Your task to perform on an android device: Go to Yahoo.com Image 0: 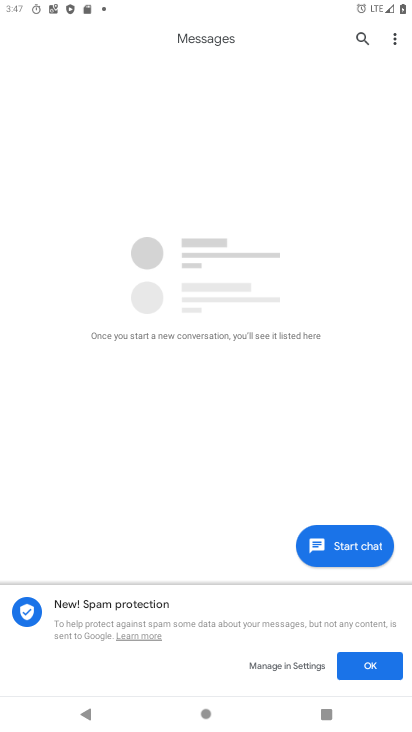
Step 0: press home button
Your task to perform on an android device: Go to Yahoo.com Image 1: 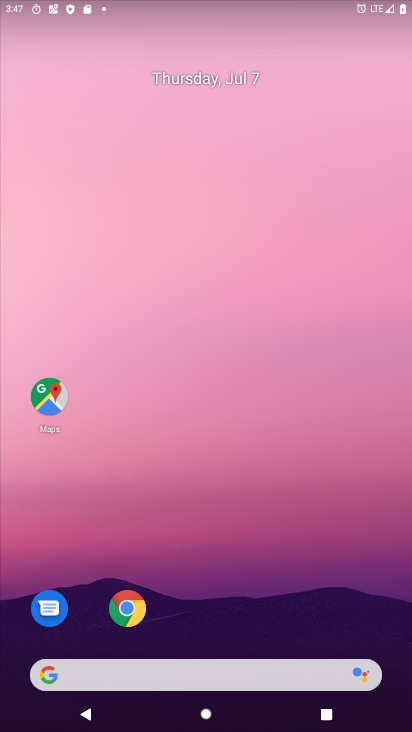
Step 1: click (120, 607)
Your task to perform on an android device: Go to Yahoo.com Image 2: 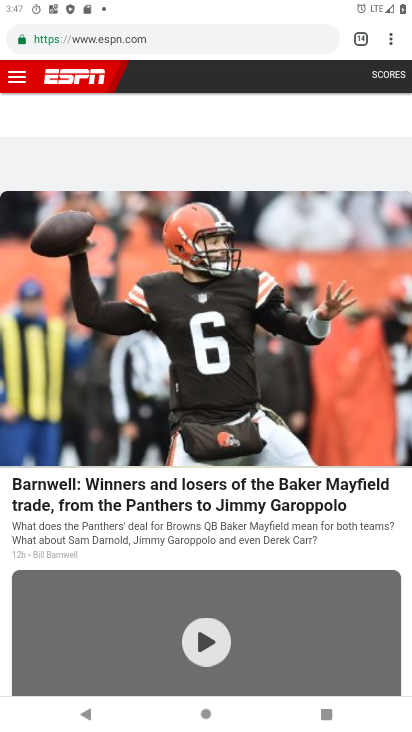
Step 2: click (391, 41)
Your task to perform on an android device: Go to Yahoo.com Image 3: 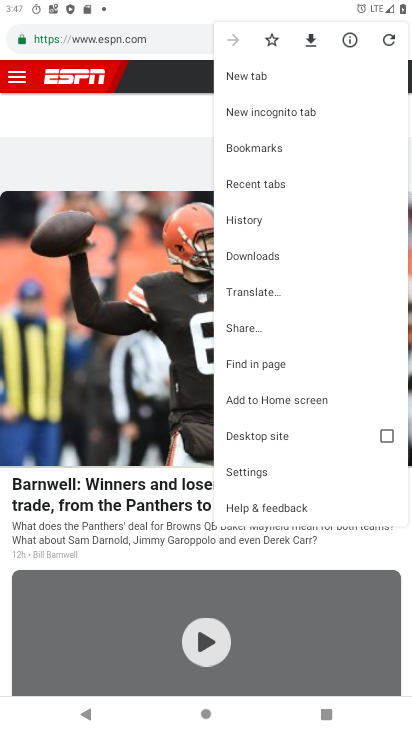
Step 3: click (245, 73)
Your task to perform on an android device: Go to Yahoo.com Image 4: 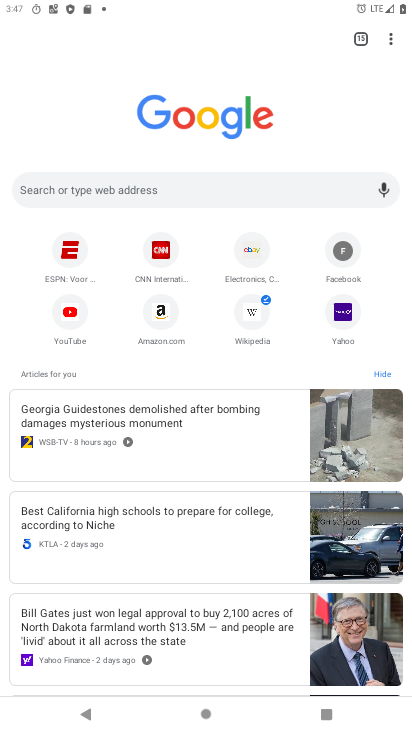
Step 4: click (344, 311)
Your task to perform on an android device: Go to Yahoo.com Image 5: 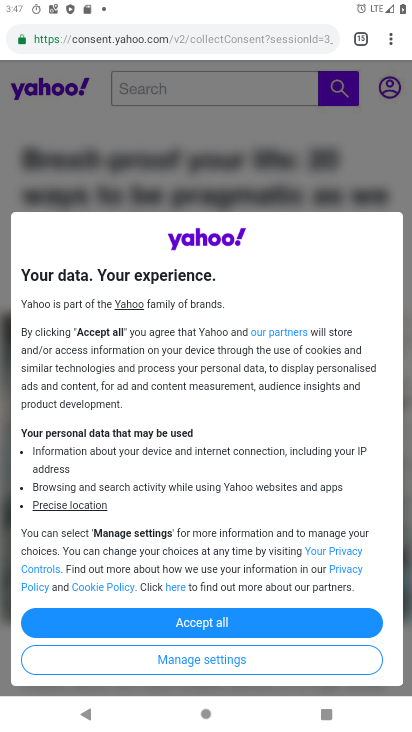
Step 5: click (224, 622)
Your task to perform on an android device: Go to Yahoo.com Image 6: 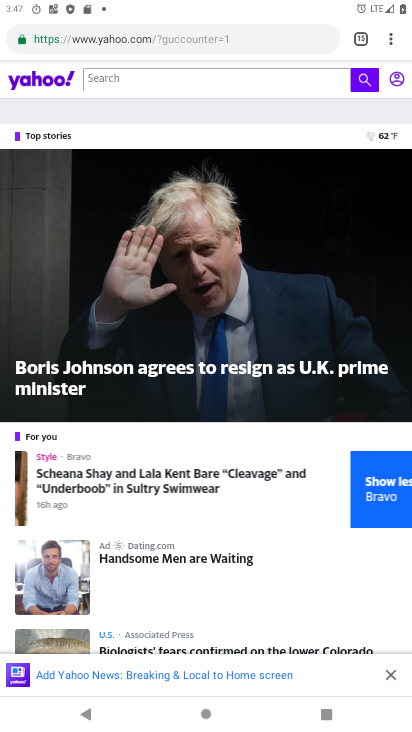
Step 6: task complete